Your task to perform on an android device: Open Maps and search for coffee Image 0: 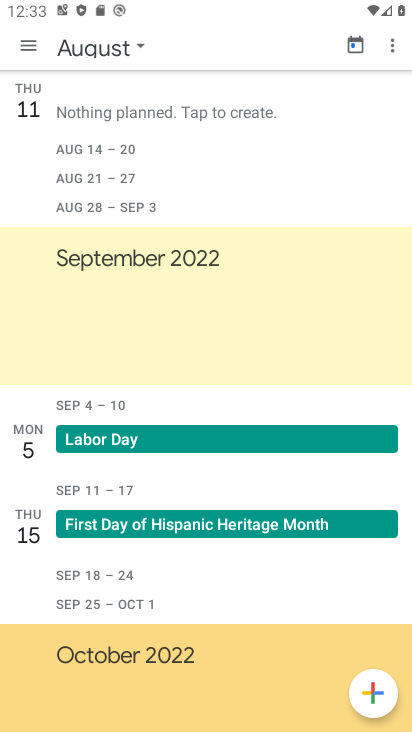
Step 0: press home button
Your task to perform on an android device: Open Maps and search for coffee Image 1: 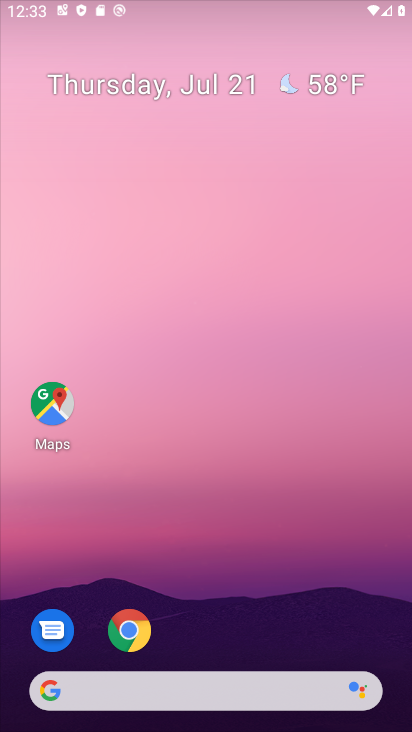
Step 1: drag from (206, 642) to (206, 49)
Your task to perform on an android device: Open Maps and search for coffee Image 2: 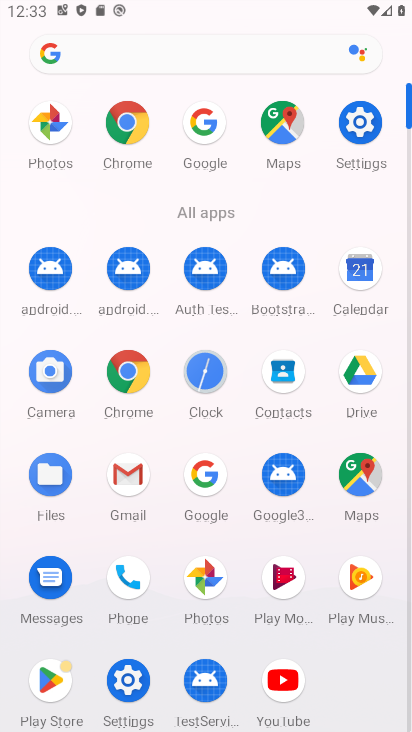
Step 2: click (352, 482)
Your task to perform on an android device: Open Maps and search for coffee Image 3: 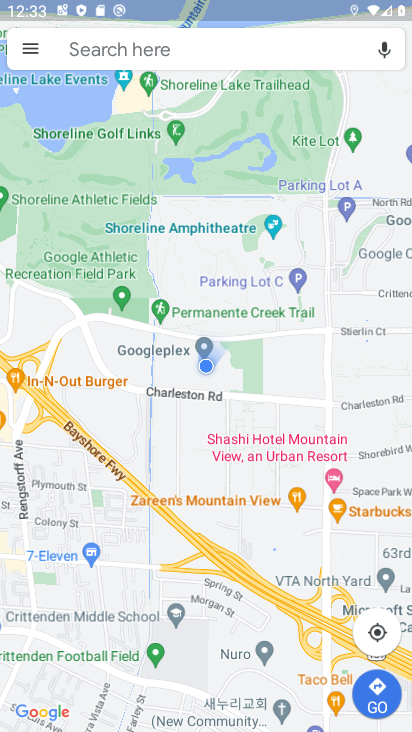
Step 3: click (226, 59)
Your task to perform on an android device: Open Maps and search for coffee Image 4: 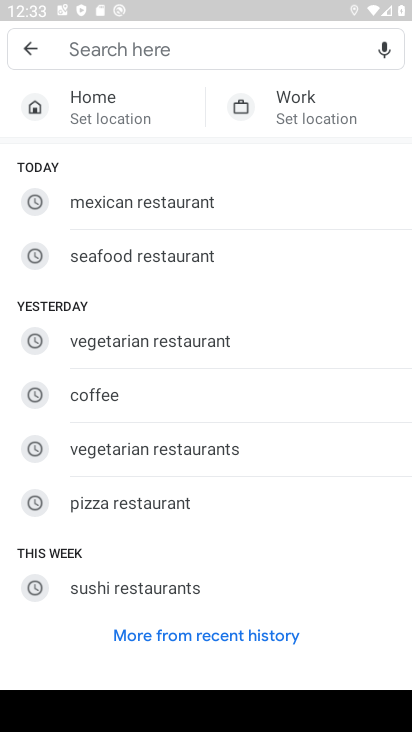
Step 4: click (132, 383)
Your task to perform on an android device: Open Maps and search for coffee Image 5: 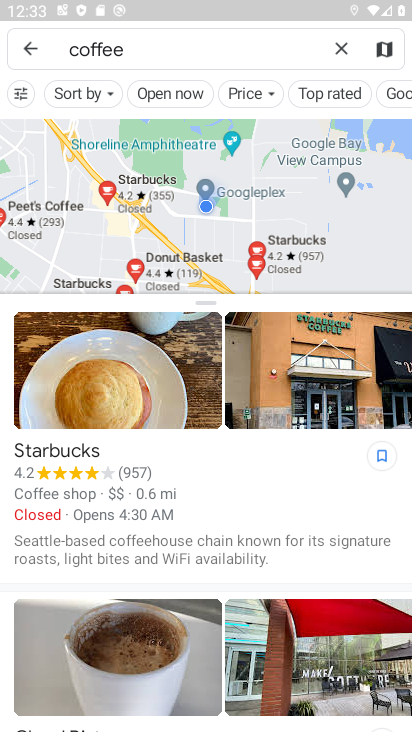
Step 5: task complete